Your task to perform on an android device: turn off notifications in google photos Image 0: 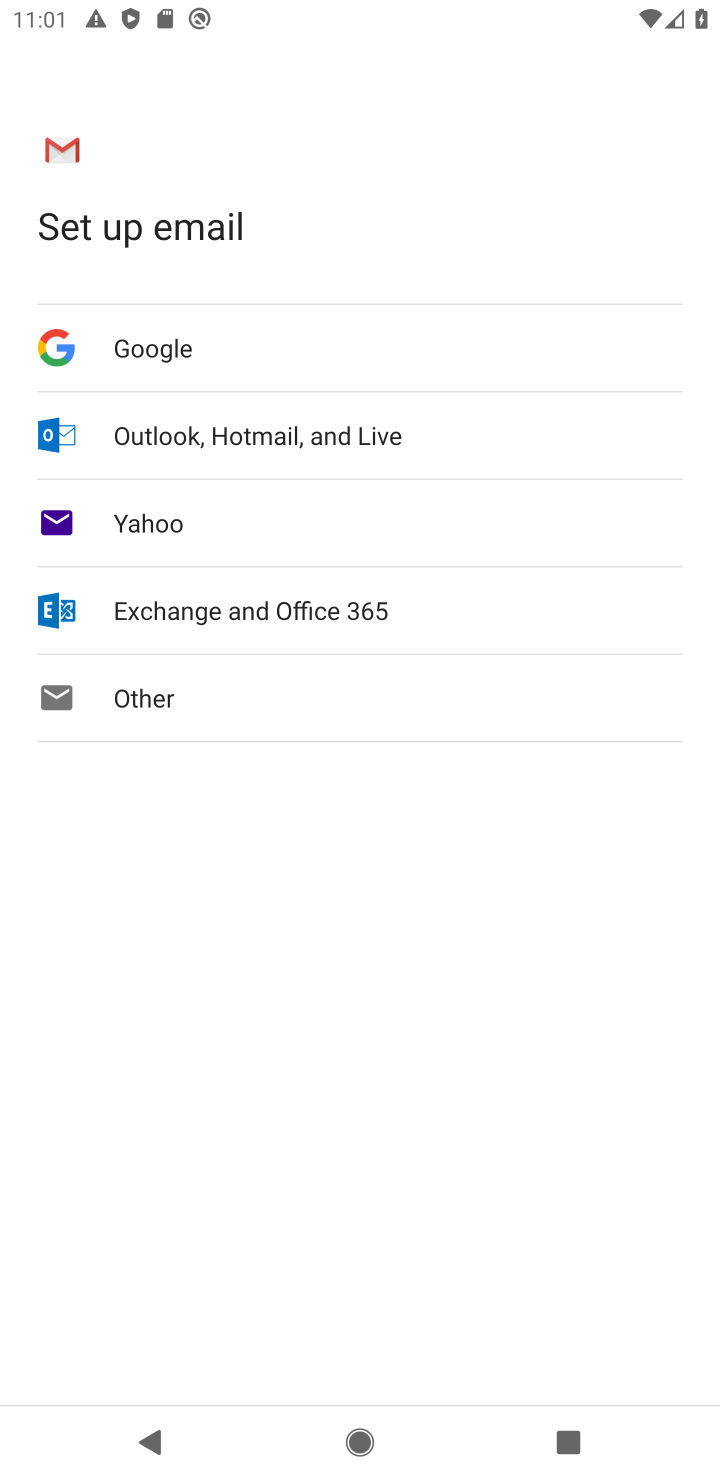
Step 0: drag from (407, 1265) to (685, 536)
Your task to perform on an android device: turn off notifications in google photos Image 1: 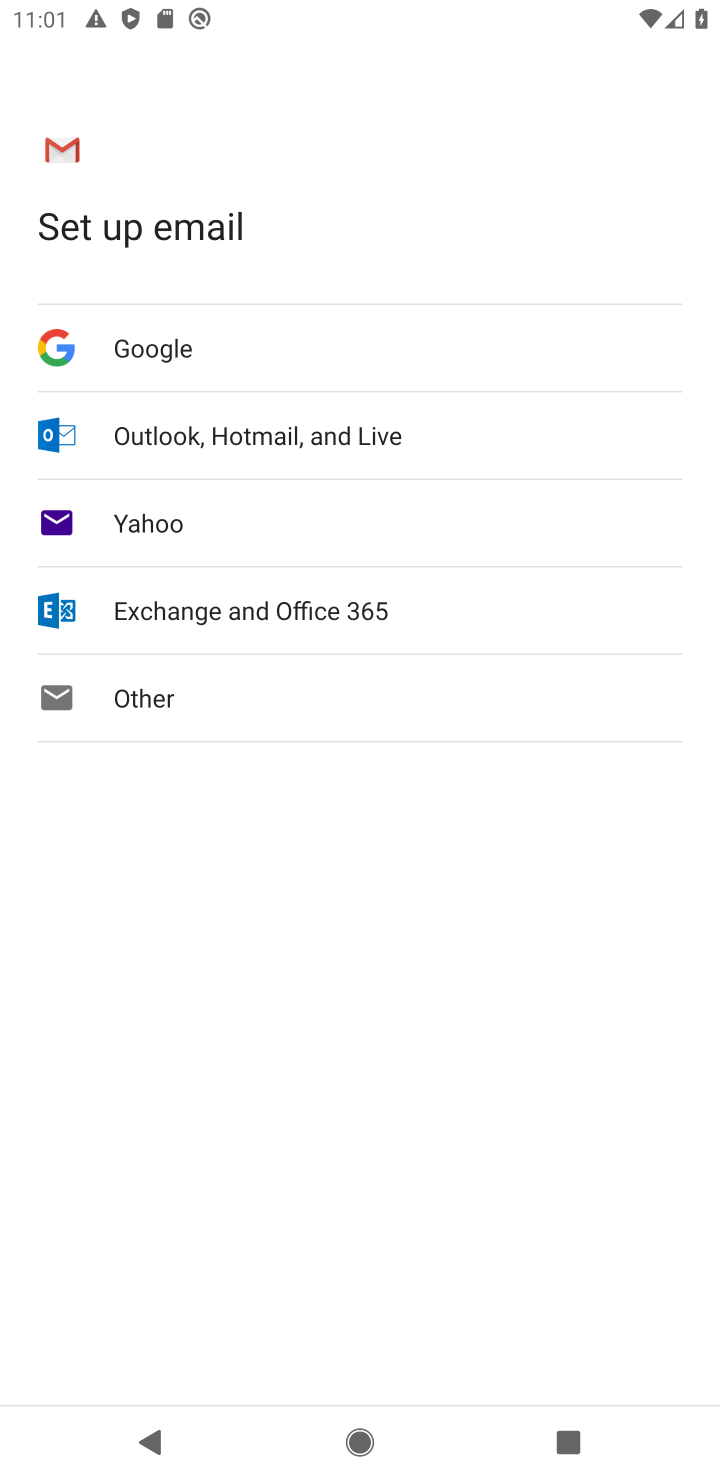
Step 1: press home button
Your task to perform on an android device: turn off notifications in google photos Image 2: 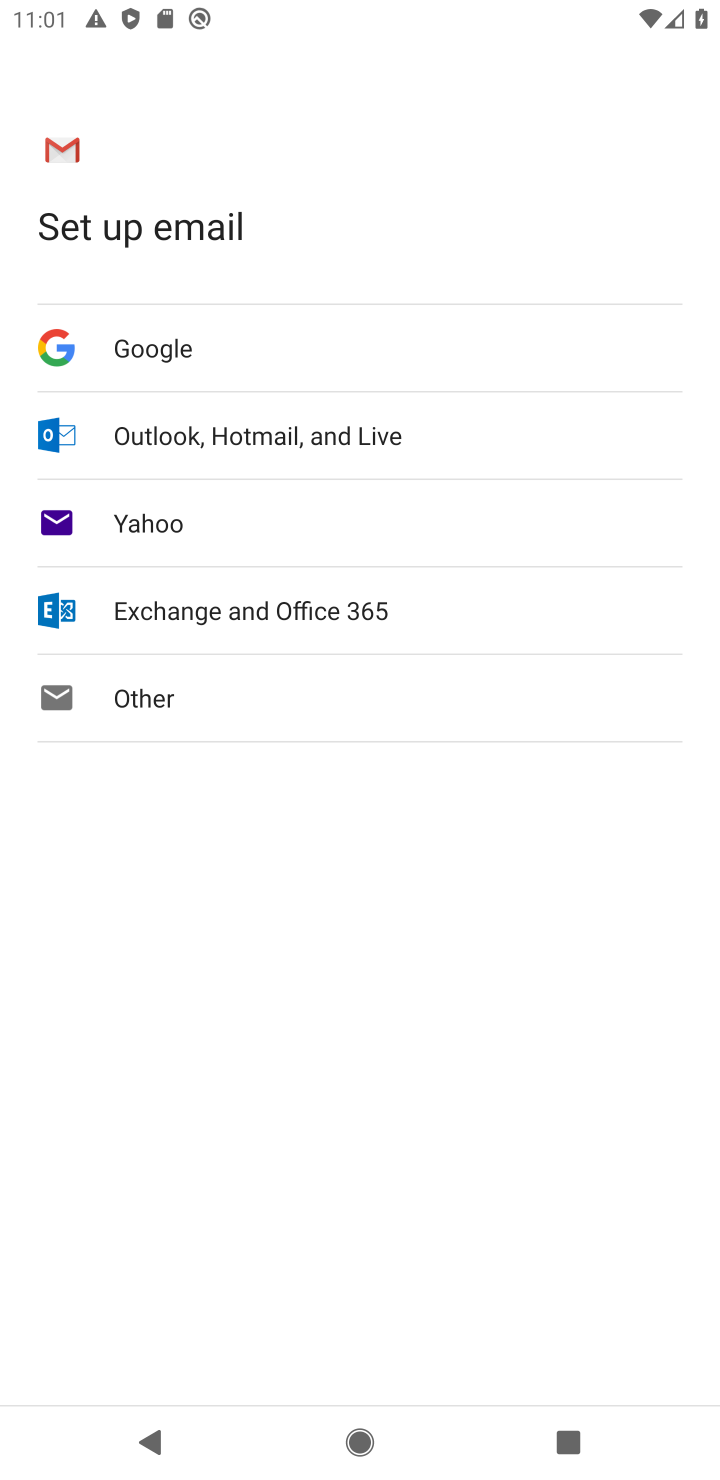
Step 2: click (506, 319)
Your task to perform on an android device: turn off notifications in google photos Image 3: 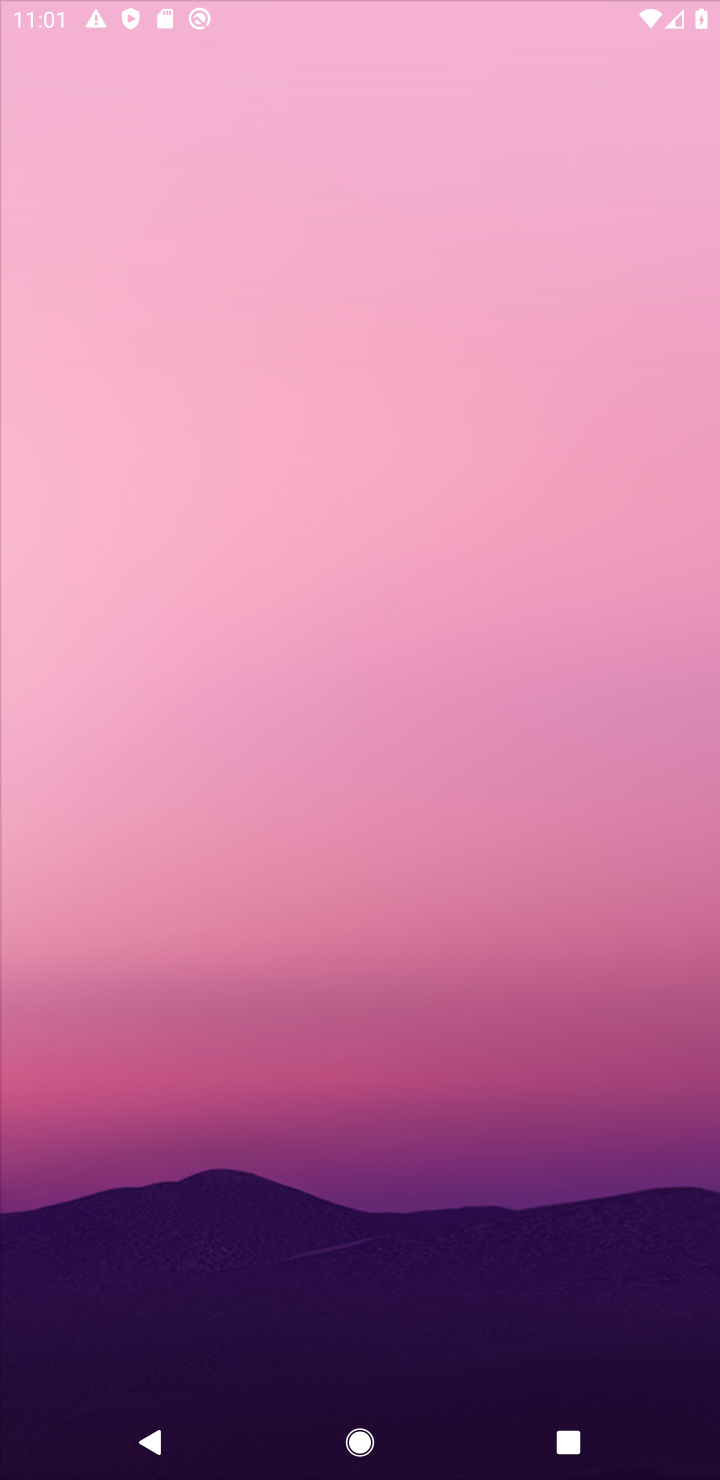
Step 3: drag from (217, 1246) to (300, 310)
Your task to perform on an android device: turn off notifications in google photos Image 4: 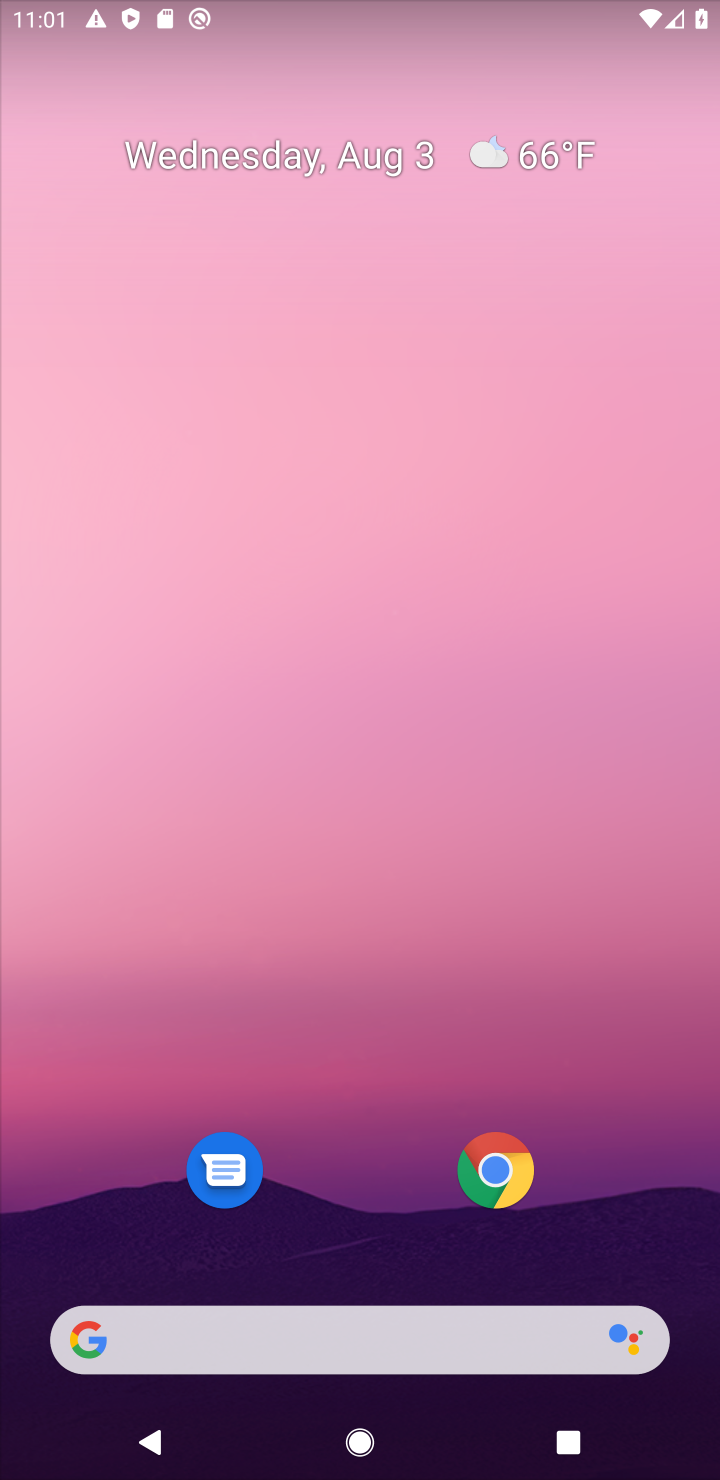
Step 4: drag from (372, 990) to (437, 176)
Your task to perform on an android device: turn off notifications in google photos Image 5: 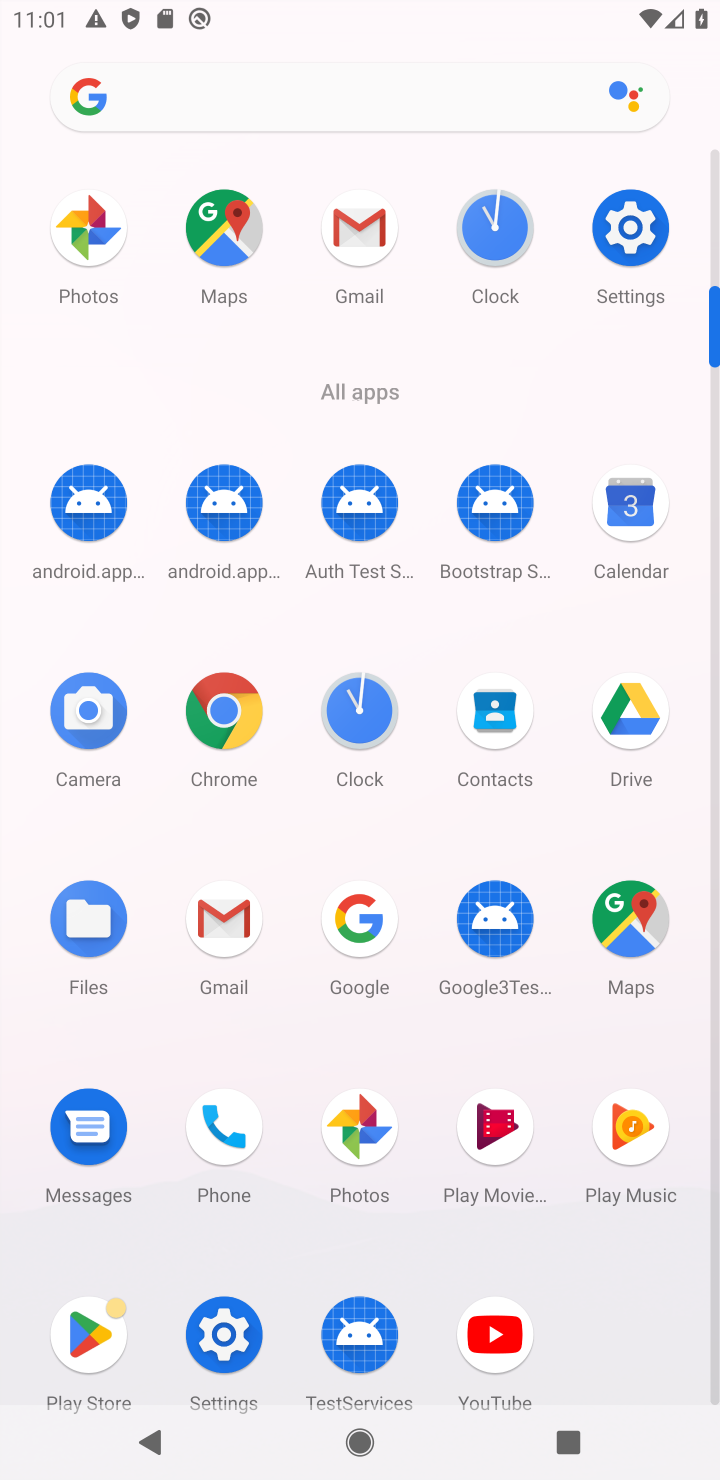
Step 5: click (347, 1118)
Your task to perform on an android device: turn off notifications in google photos Image 6: 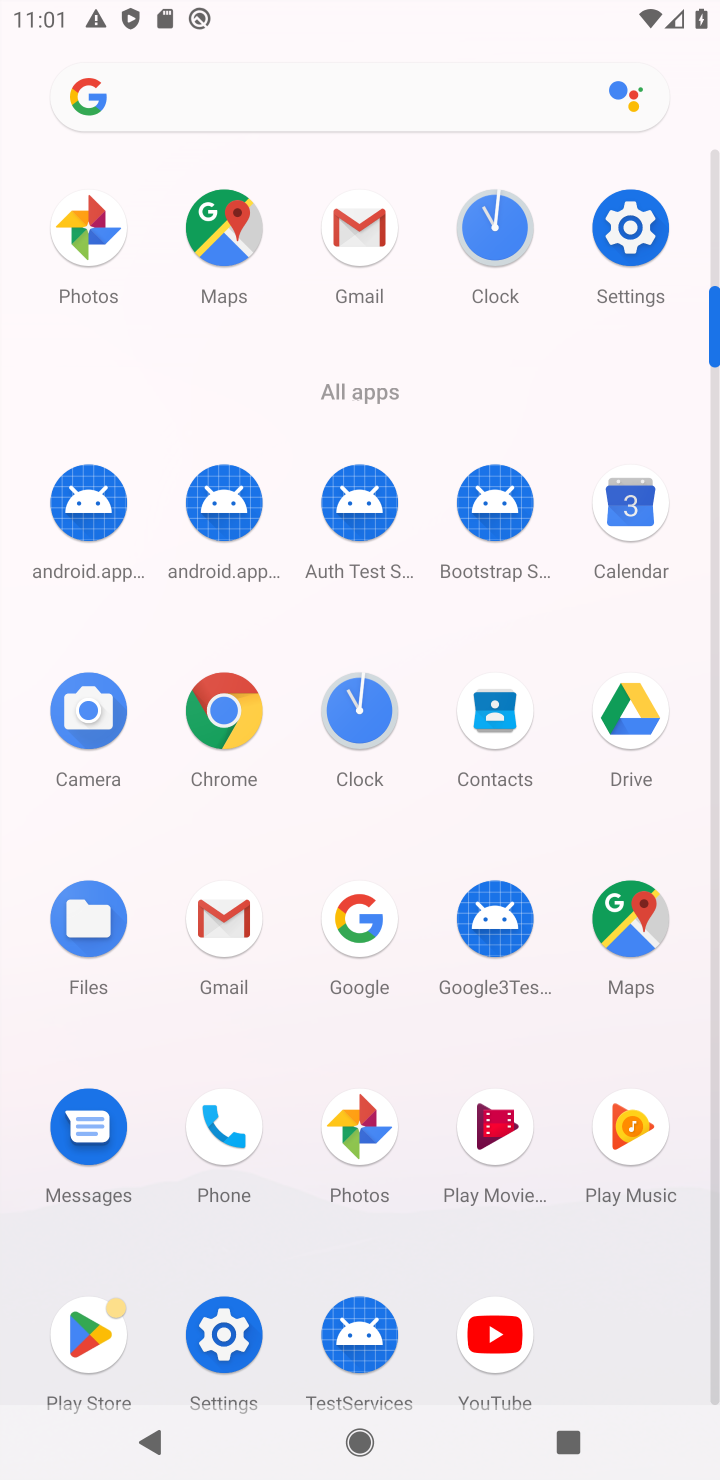
Step 6: click (347, 1118)
Your task to perform on an android device: turn off notifications in google photos Image 7: 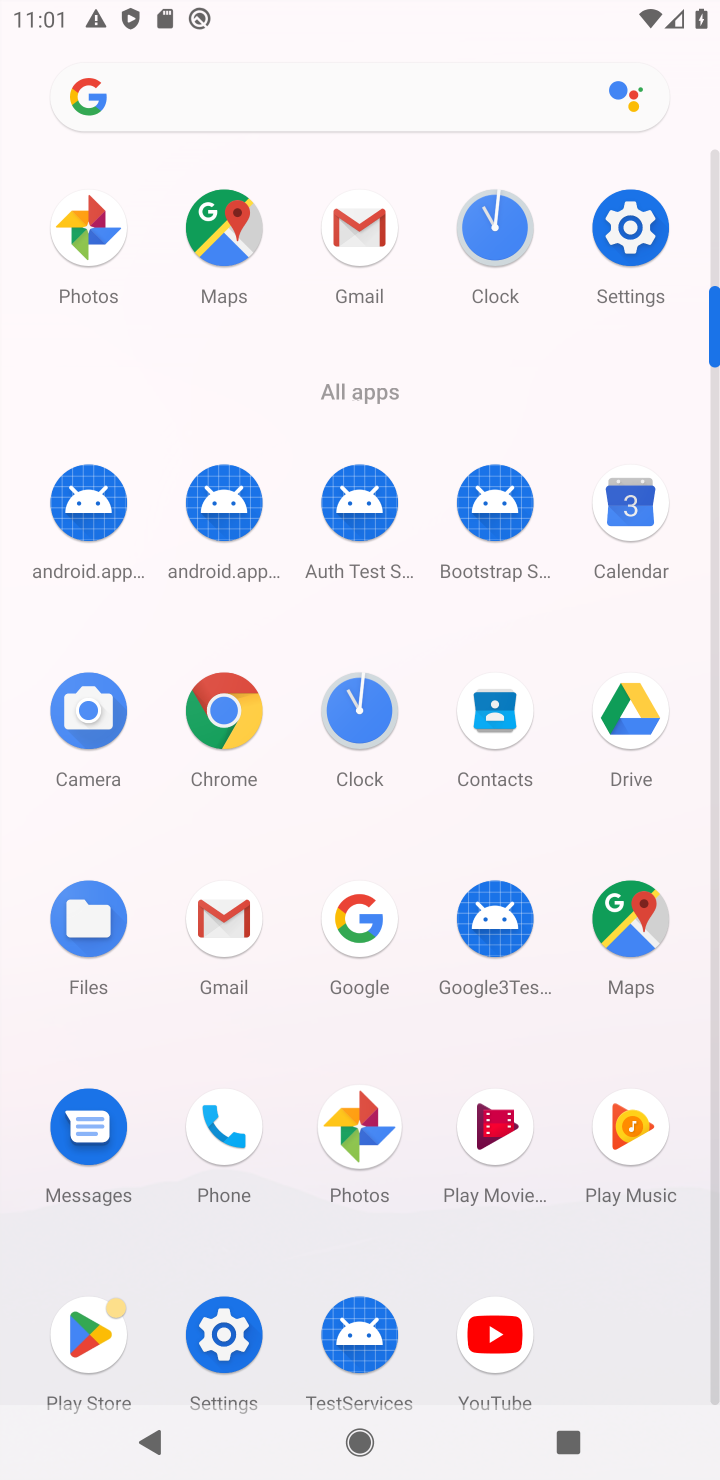
Step 7: click (345, 1116)
Your task to perform on an android device: turn off notifications in google photos Image 8: 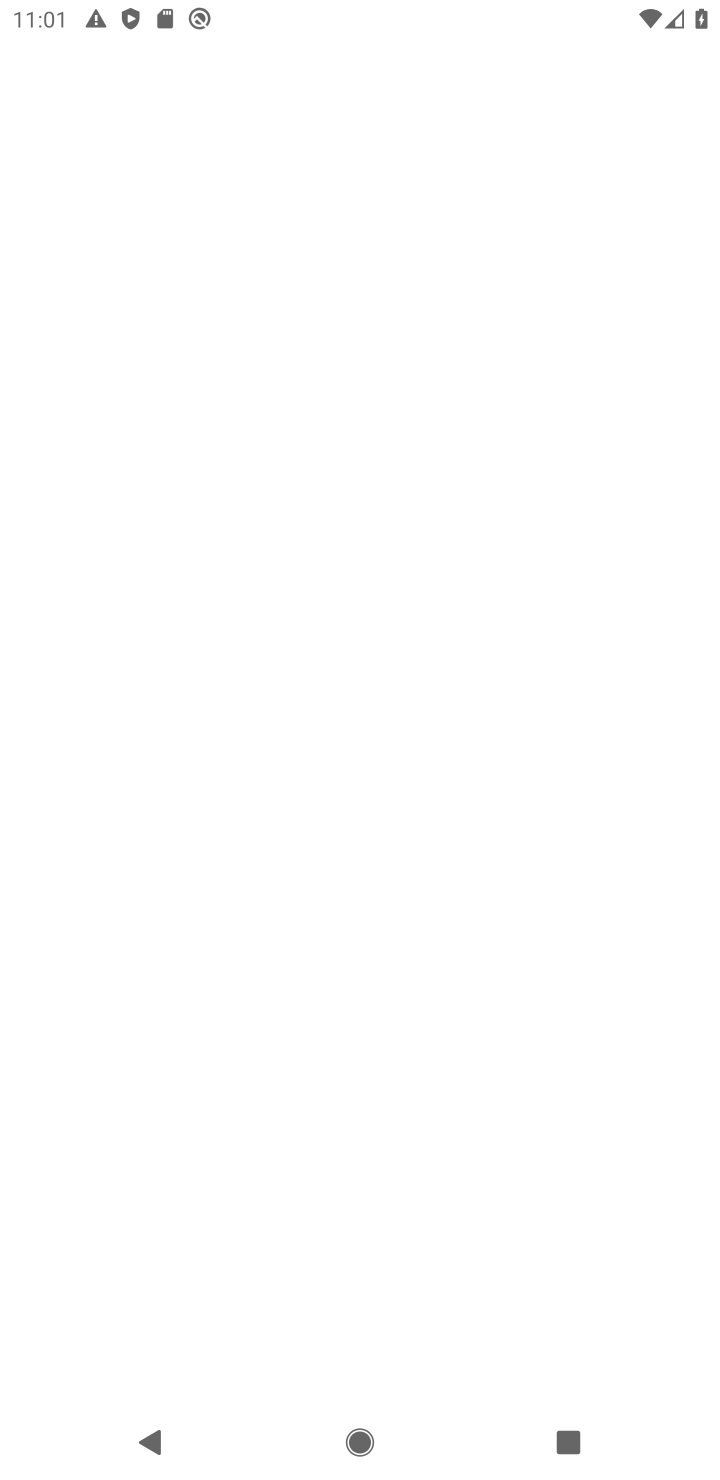
Step 8: drag from (404, 882) to (468, 349)
Your task to perform on an android device: turn off notifications in google photos Image 9: 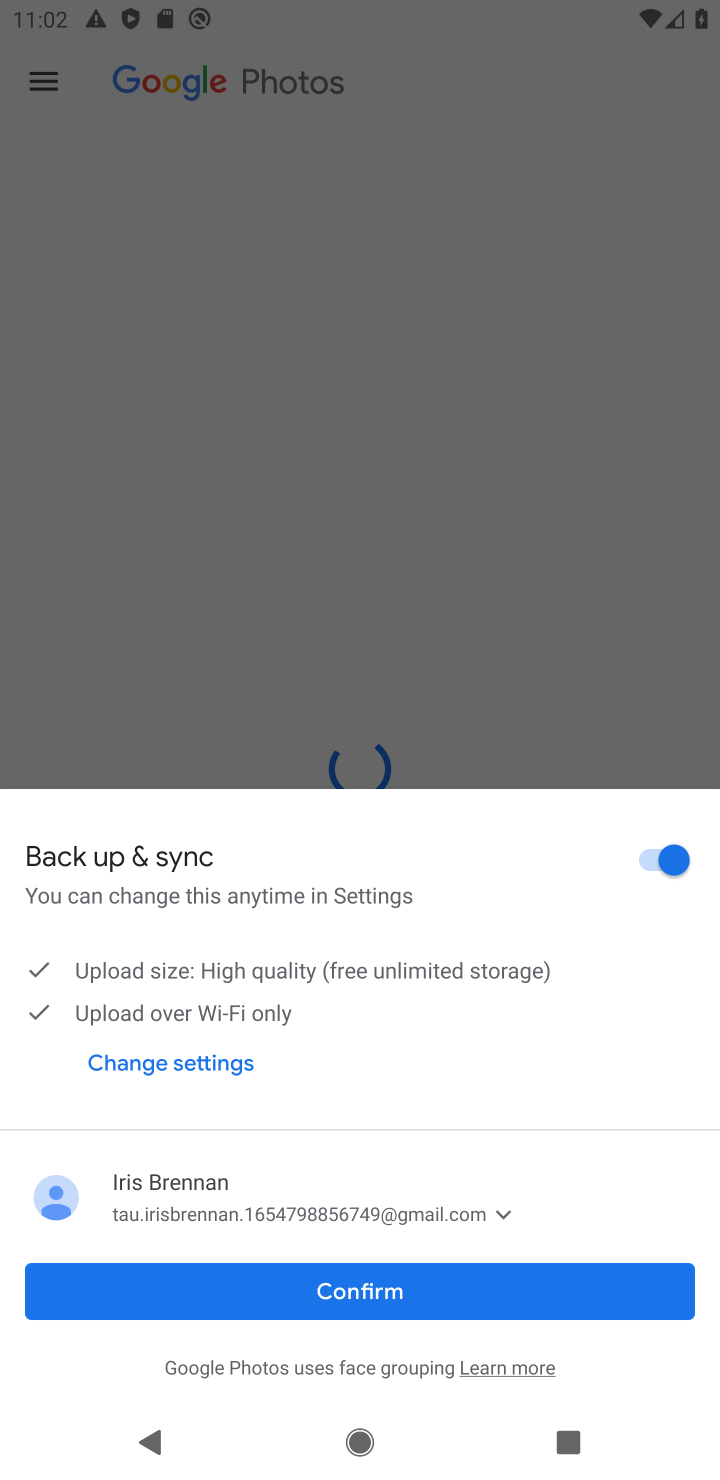
Step 9: drag from (308, 682) to (418, 188)
Your task to perform on an android device: turn off notifications in google photos Image 10: 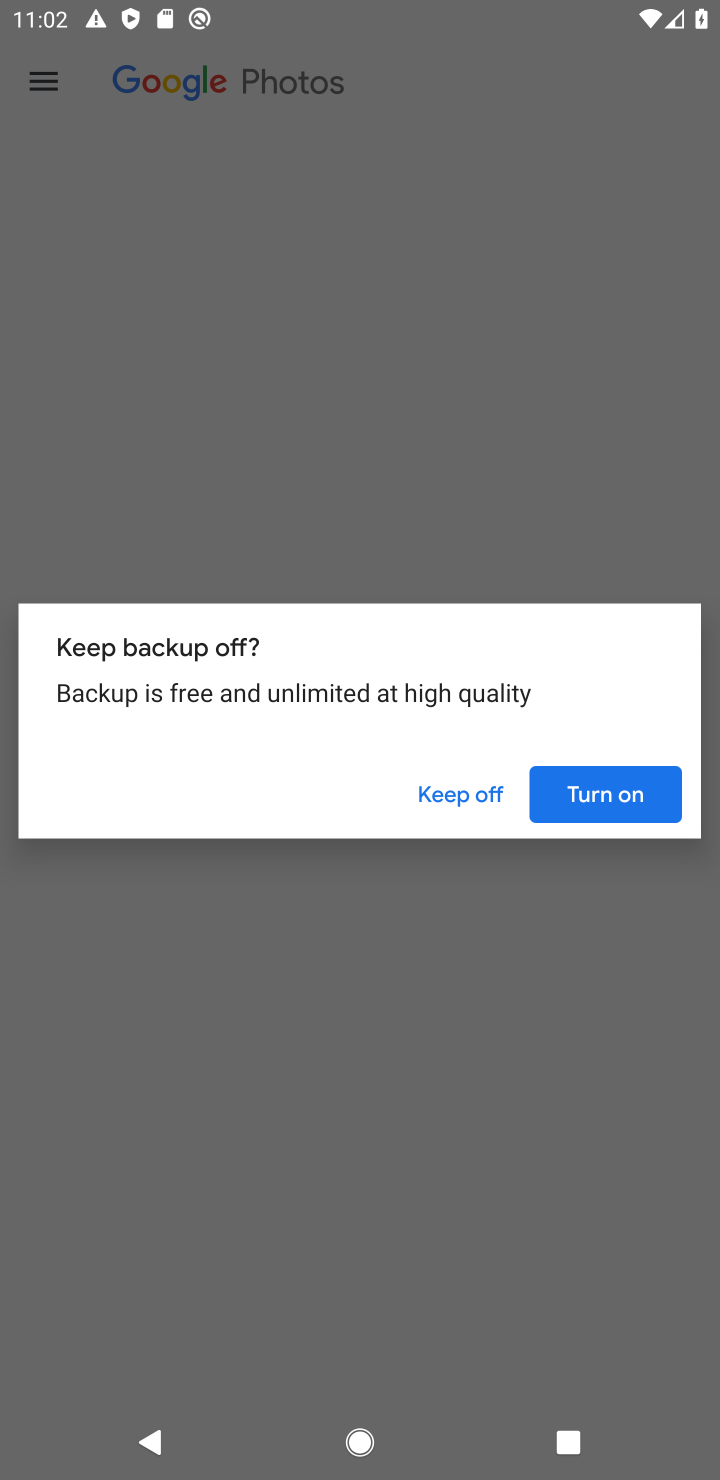
Step 10: drag from (338, 921) to (380, 381)
Your task to perform on an android device: turn off notifications in google photos Image 11: 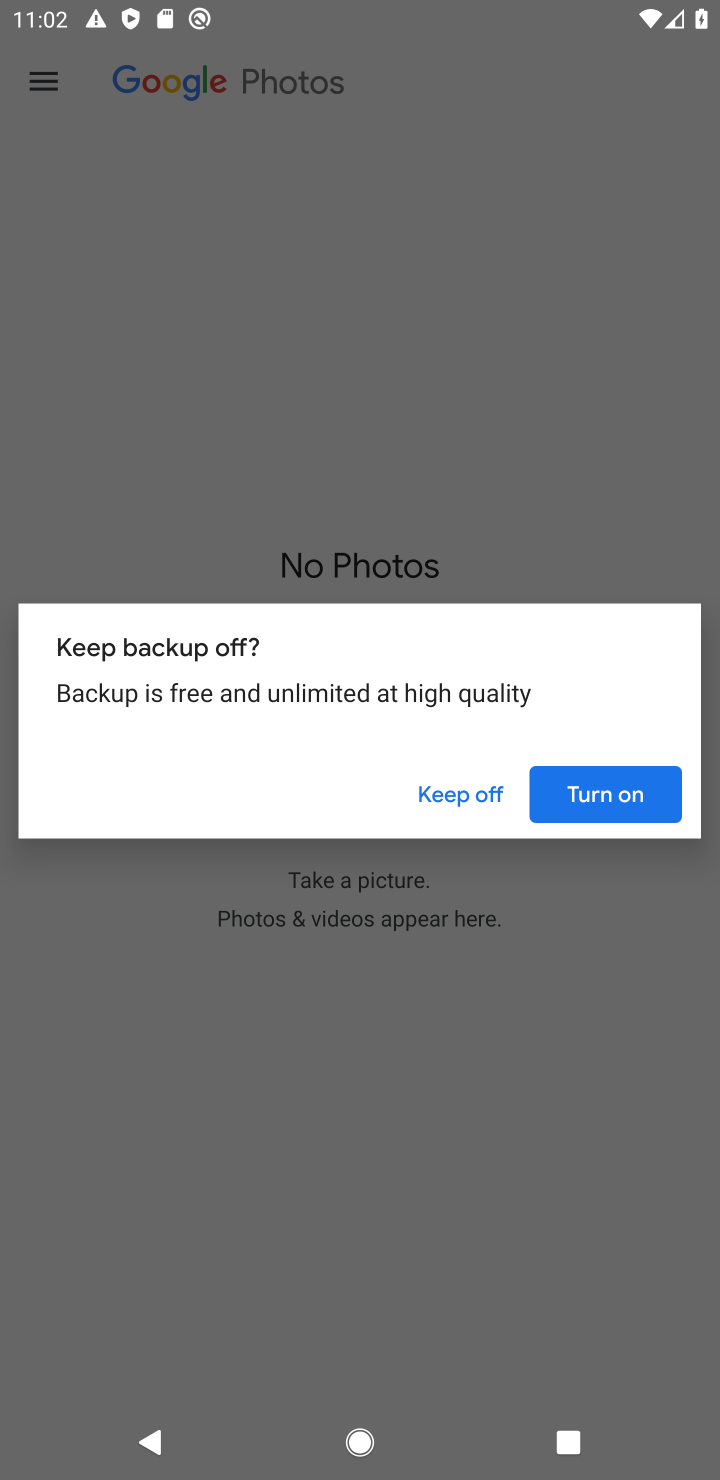
Step 11: click (593, 803)
Your task to perform on an android device: turn off notifications in google photos Image 12: 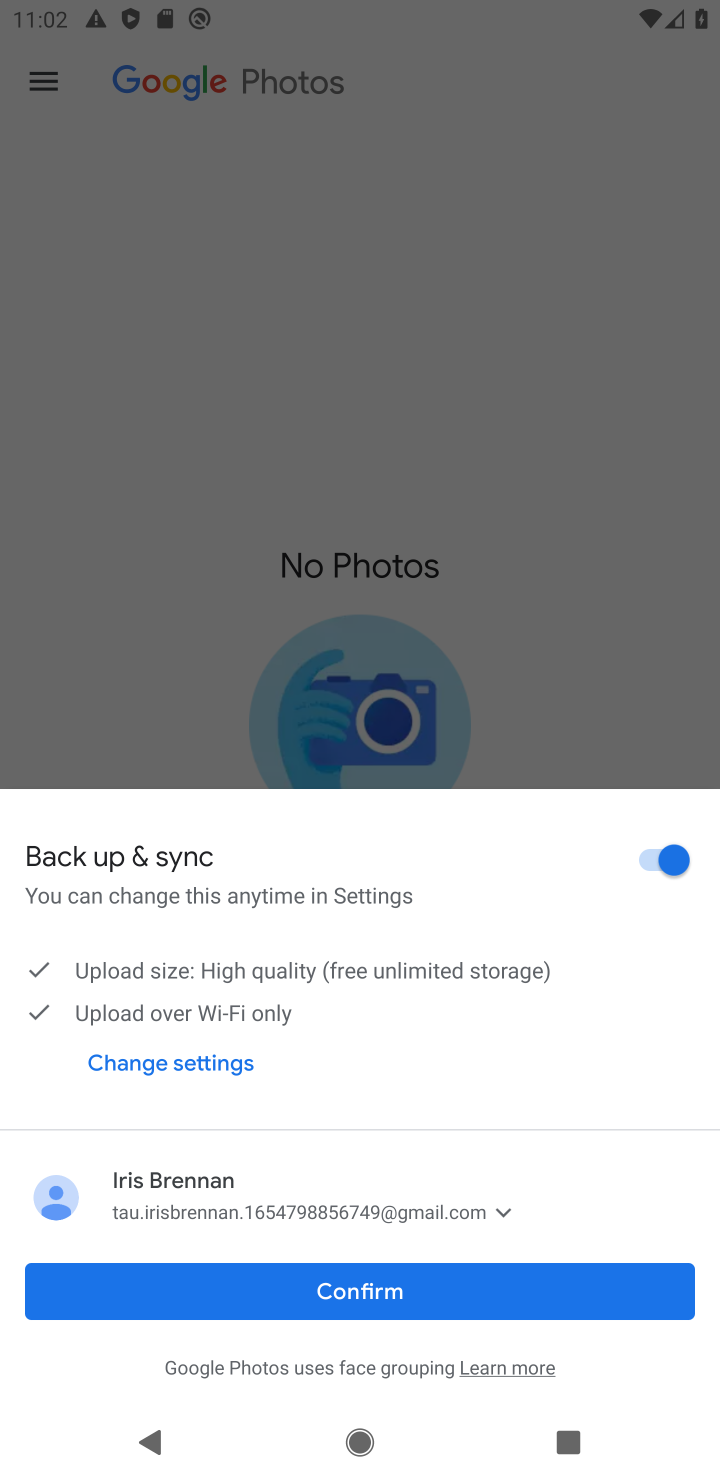
Step 12: click (332, 1295)
Your task to perform on an android device: turn off notifications in google photos Image 13: 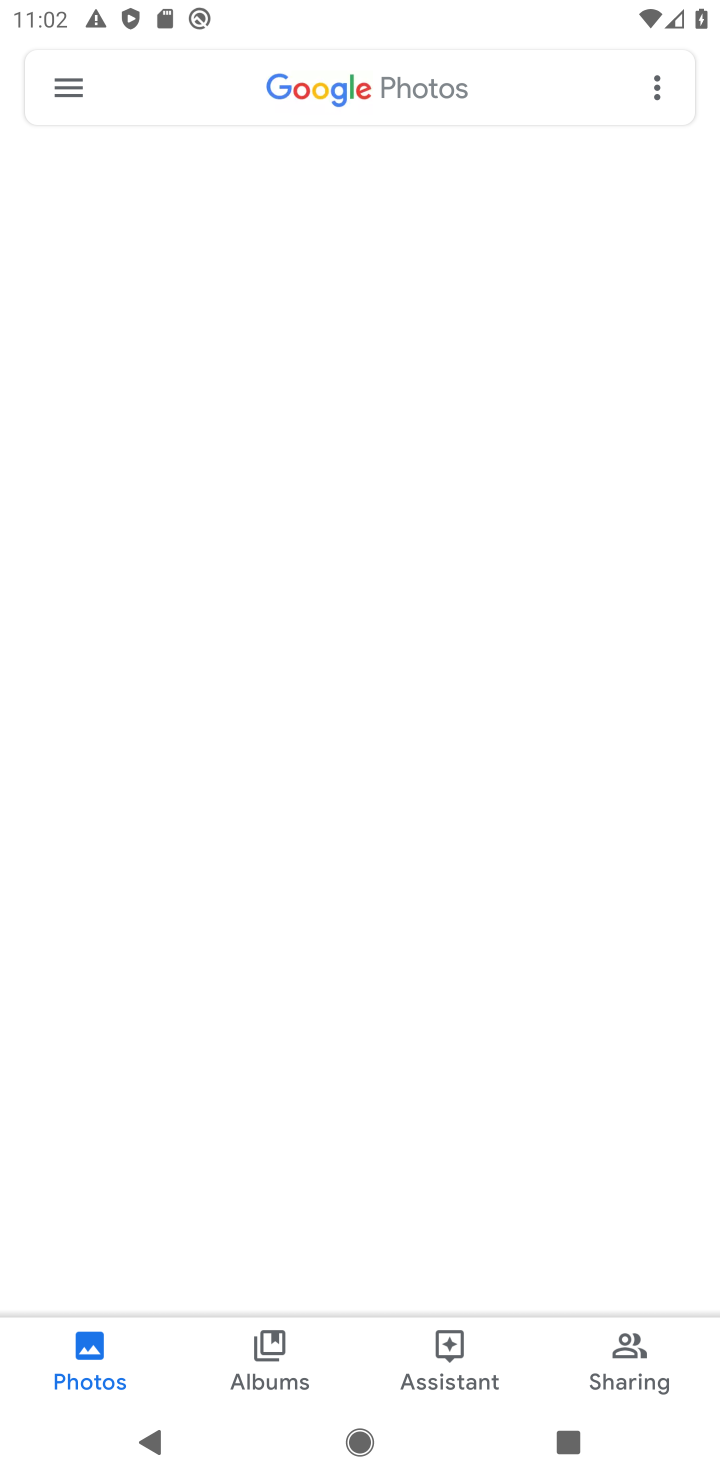
Step 13: click (39, 92)
Your task to perform on an android device: turn off notifications in google photos Image 14: 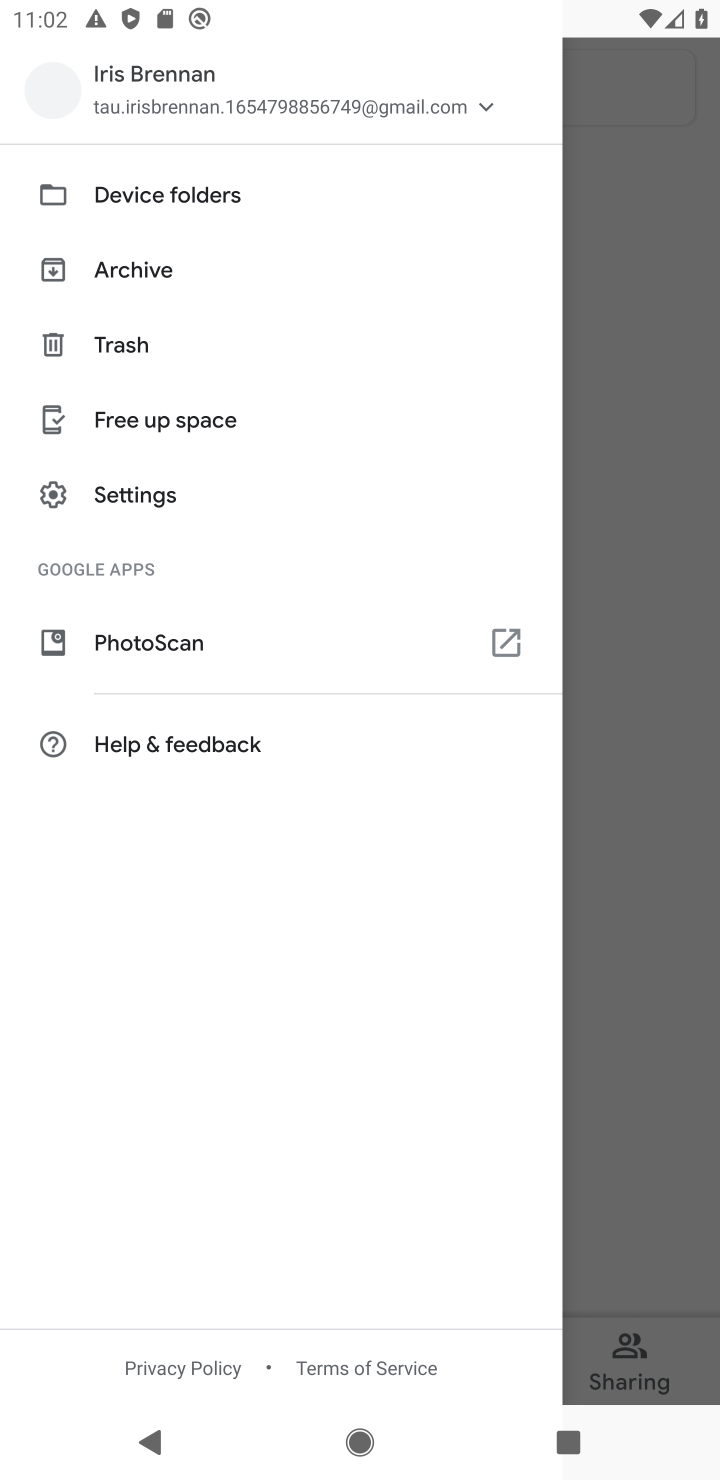
Step 14: click (134, 493)
Your task to perform on an android device: turn off notifications in google photos Image 15: 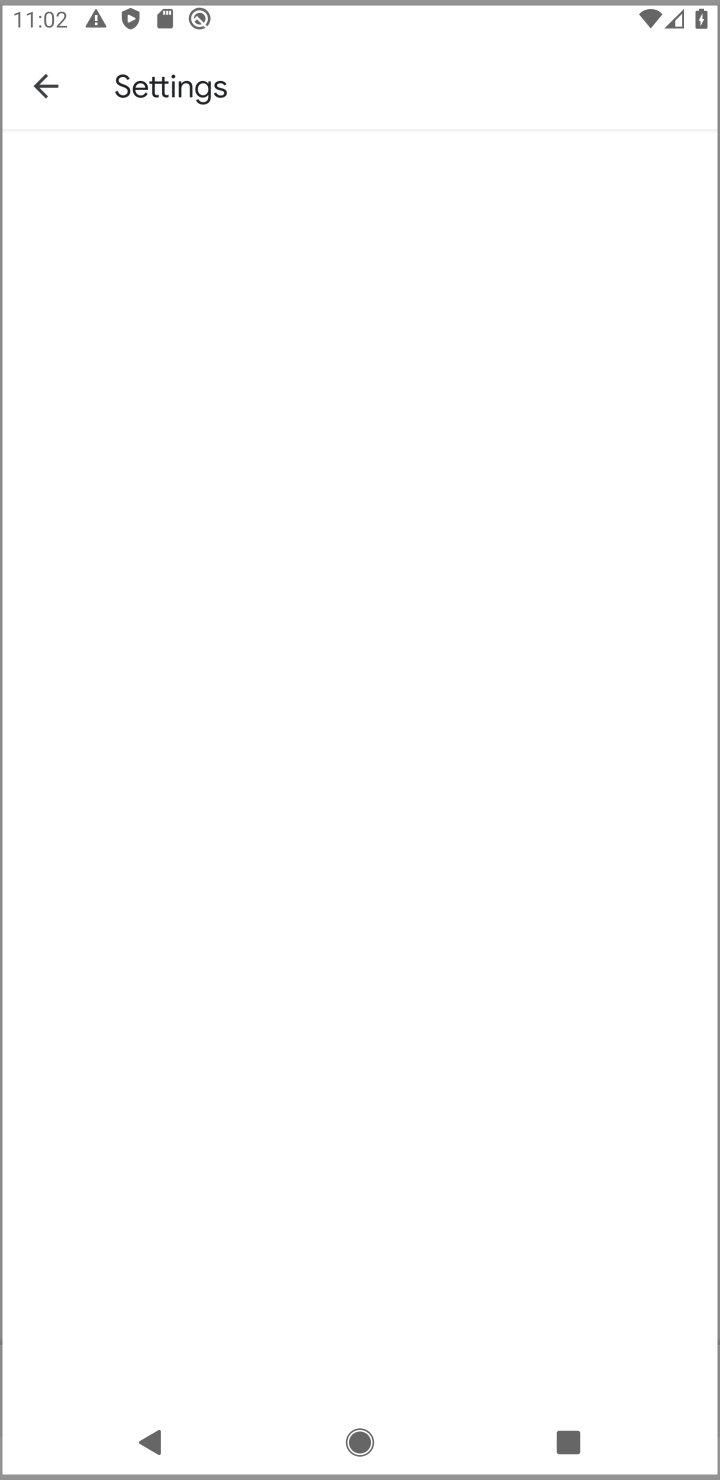
Step 15: drag from (436, 939) to (485, 387)
Your task to perform on an android device: turn off notifications in google photos Image 16: 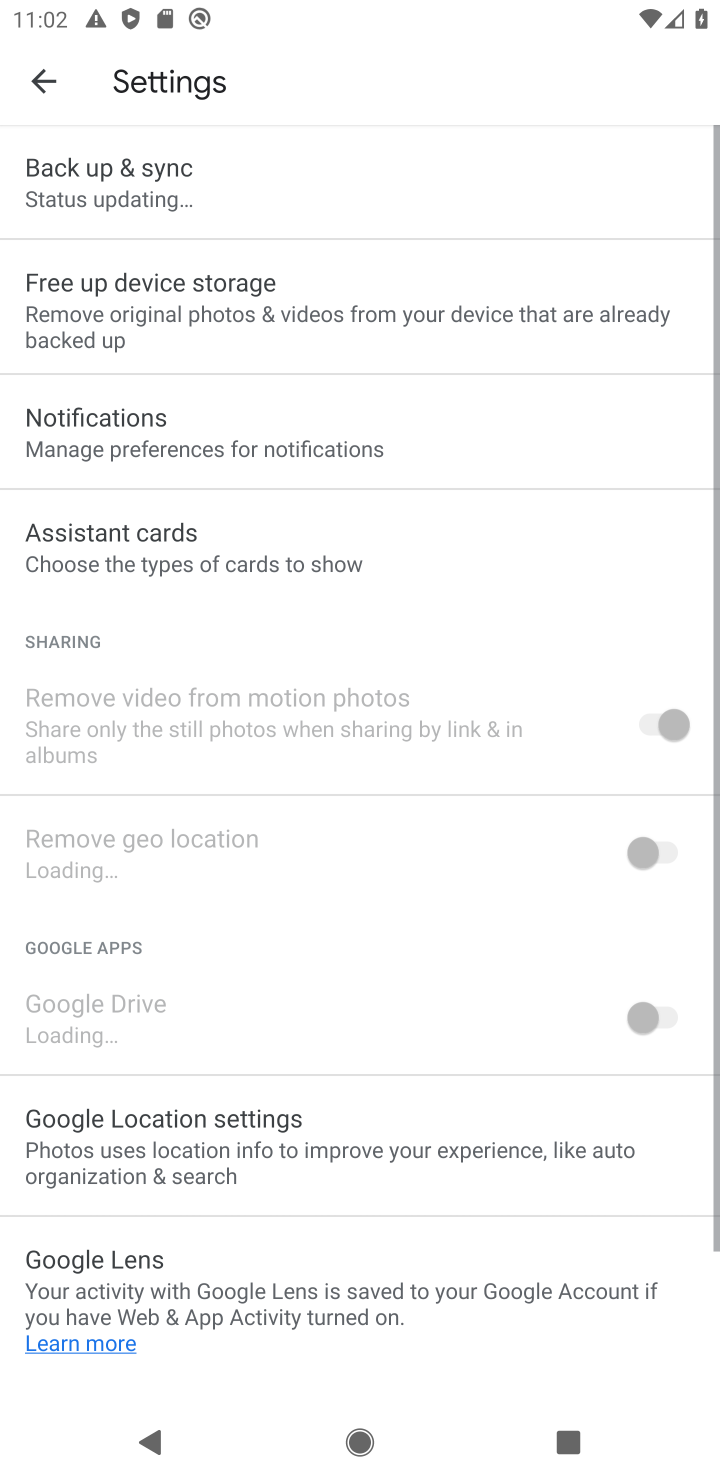
Step 16: drag from (468, 458) to (576, 1328)
Your task to perform on an android device: turn off notifications in google photos Image 17: 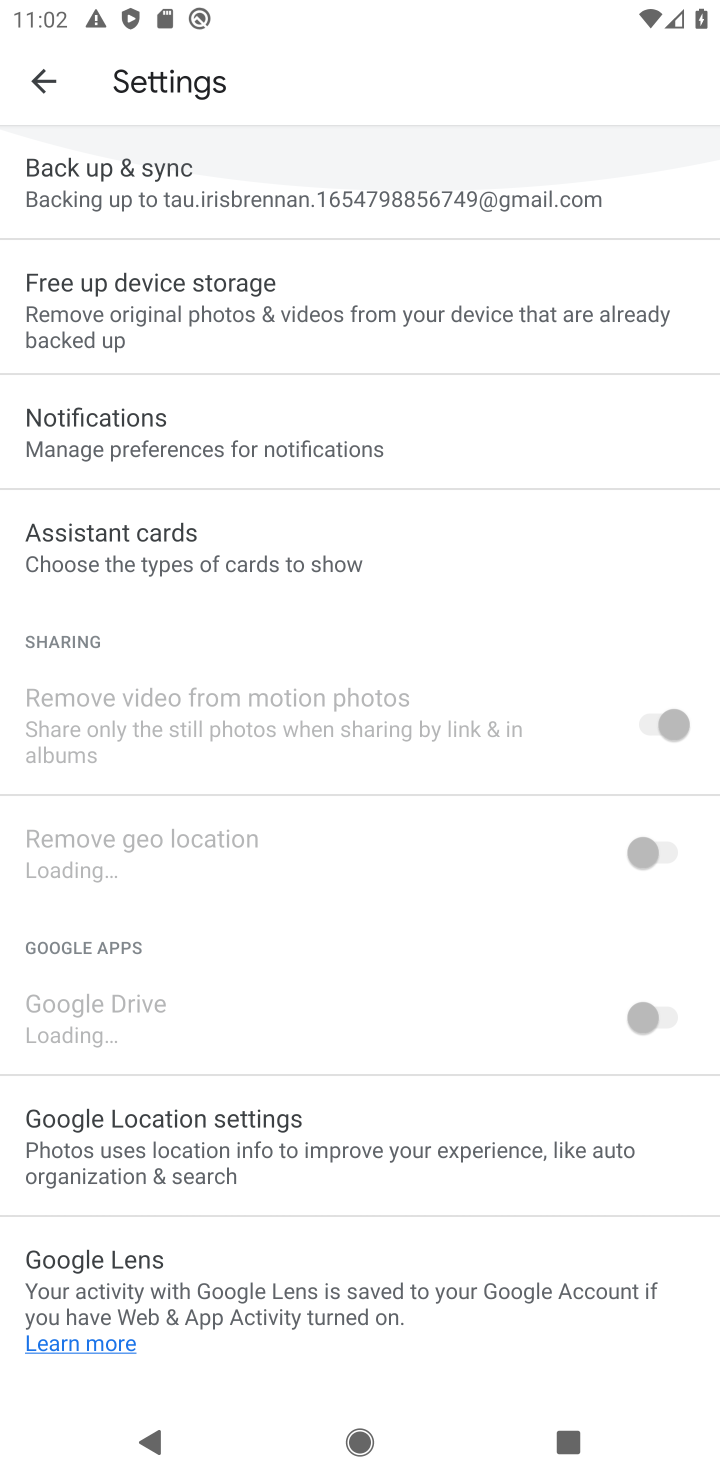
Step 17: drag from (386, 1194) to (489, 172)
Your task to perform on an android device: turn off notifications in google photos Image 18: 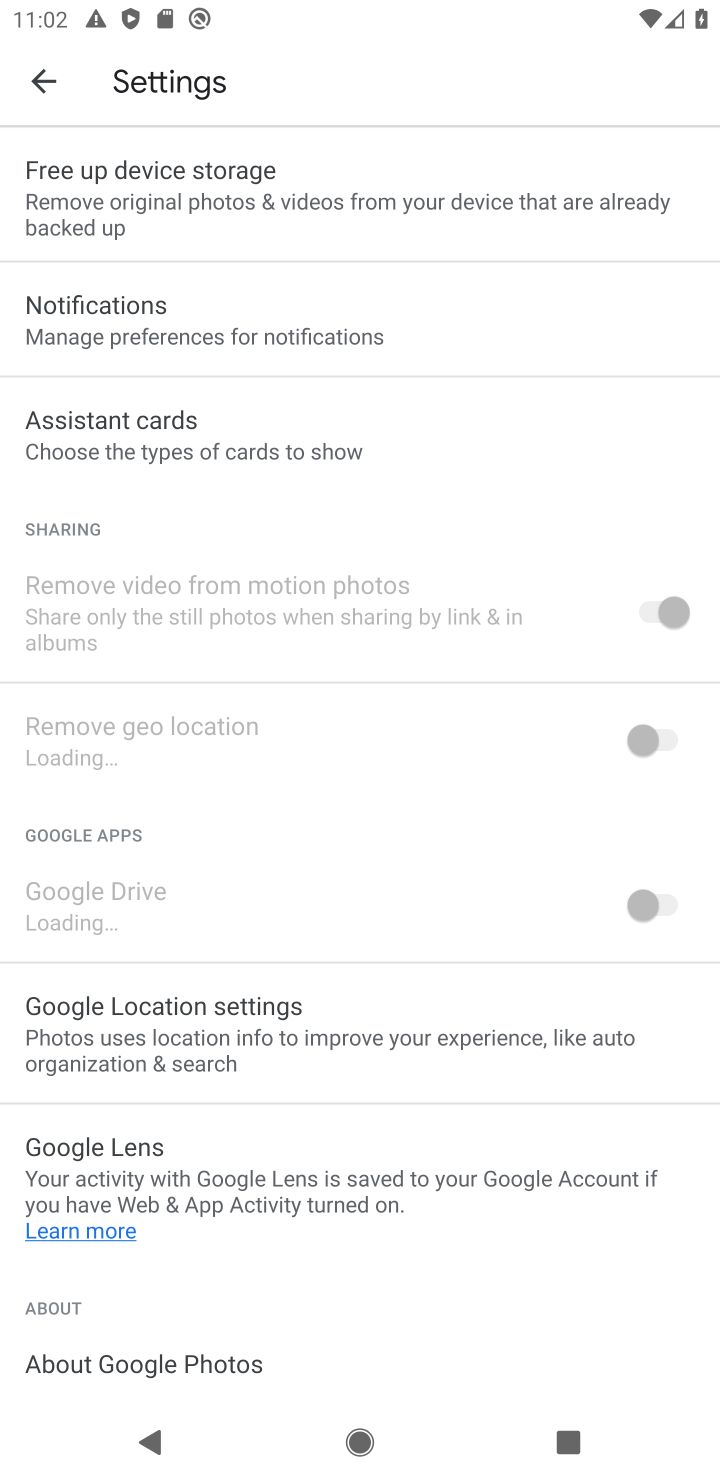
Step 18: drag from (305, 1166) to (484, 165)
Your task to perform on an android device: turn off notifications in google photos Image 19: 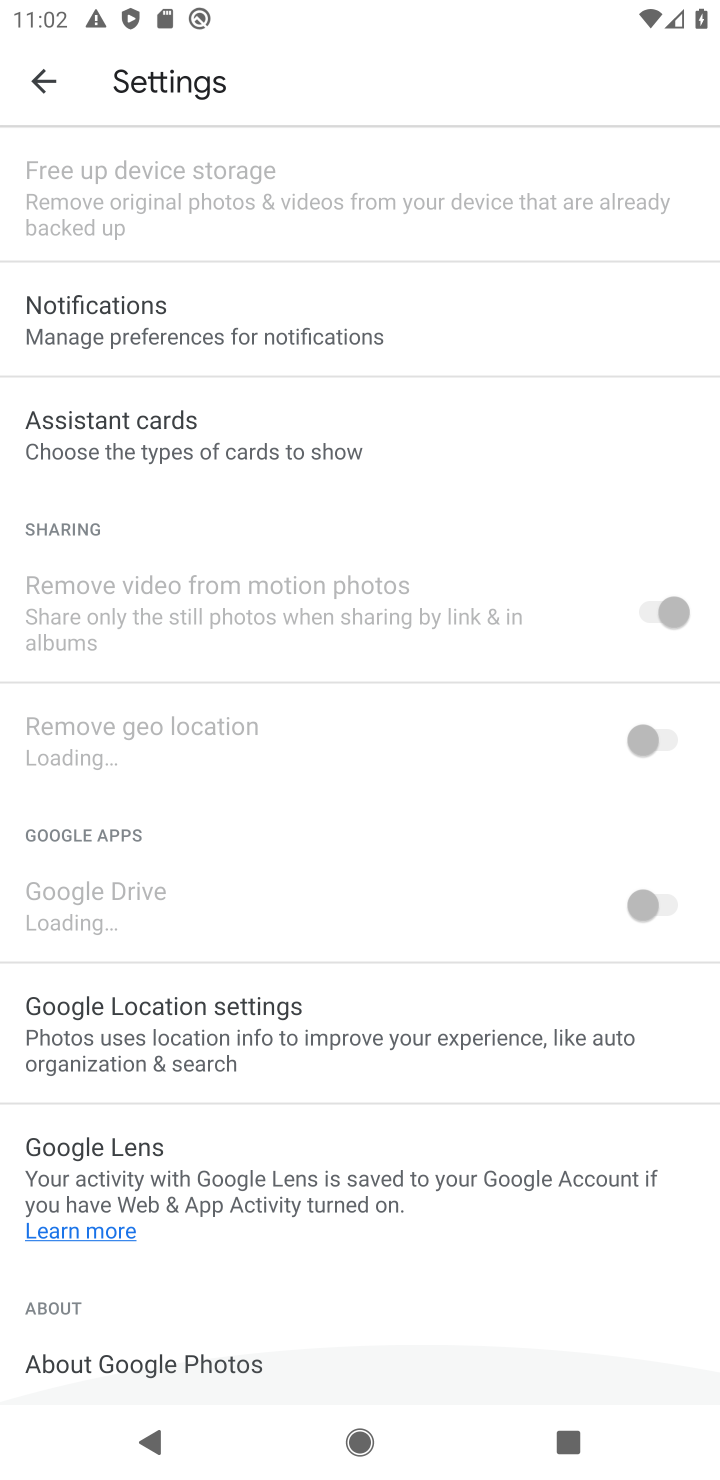
Step 19: drag from (394, 327) to (445, 1469)
Your task to perform on an android device: turn off notifications in google photos Image 20: 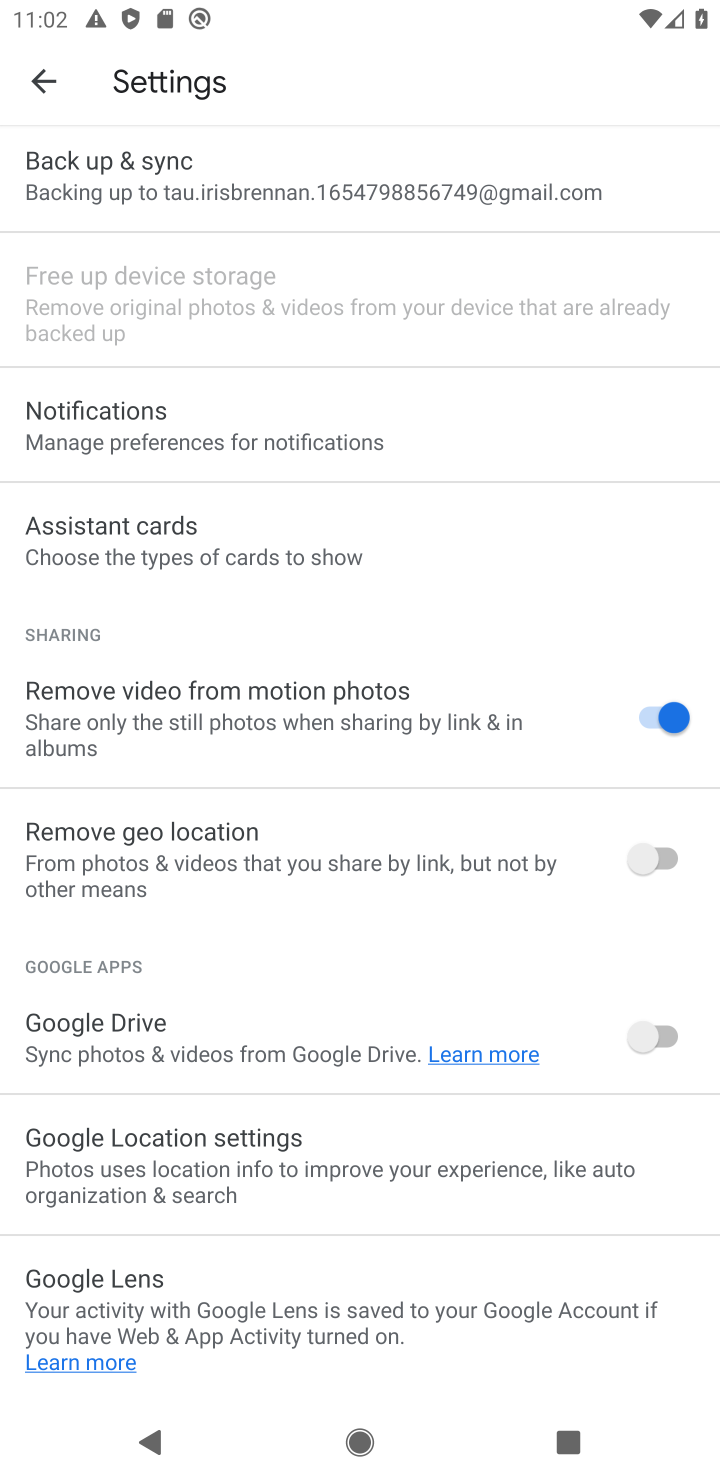
Step 20: click (223, 392)
Your task to perform on an android device: turn off notifications in google photos Image 21: 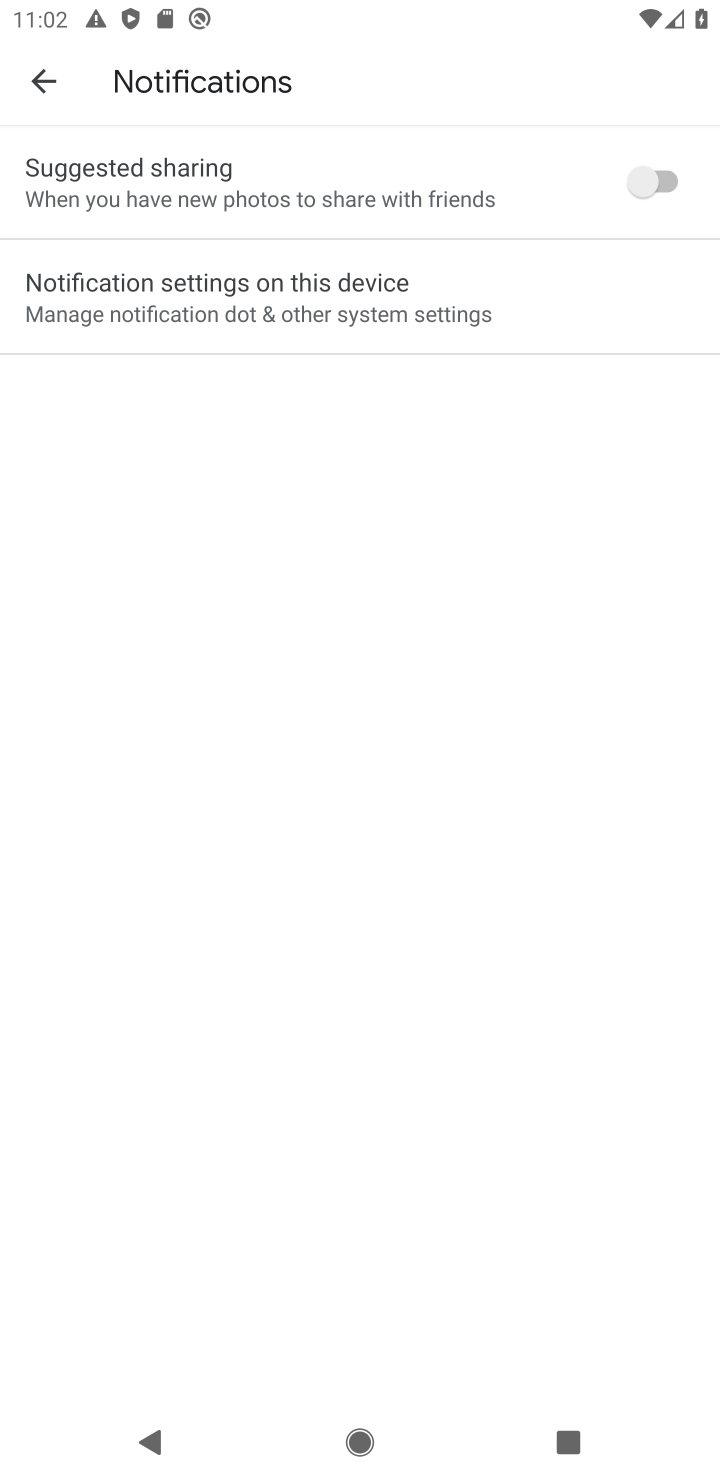
Step 21: click (254, 262)
Your task to perform on an android device: turn off notifications in google photos Image 22: 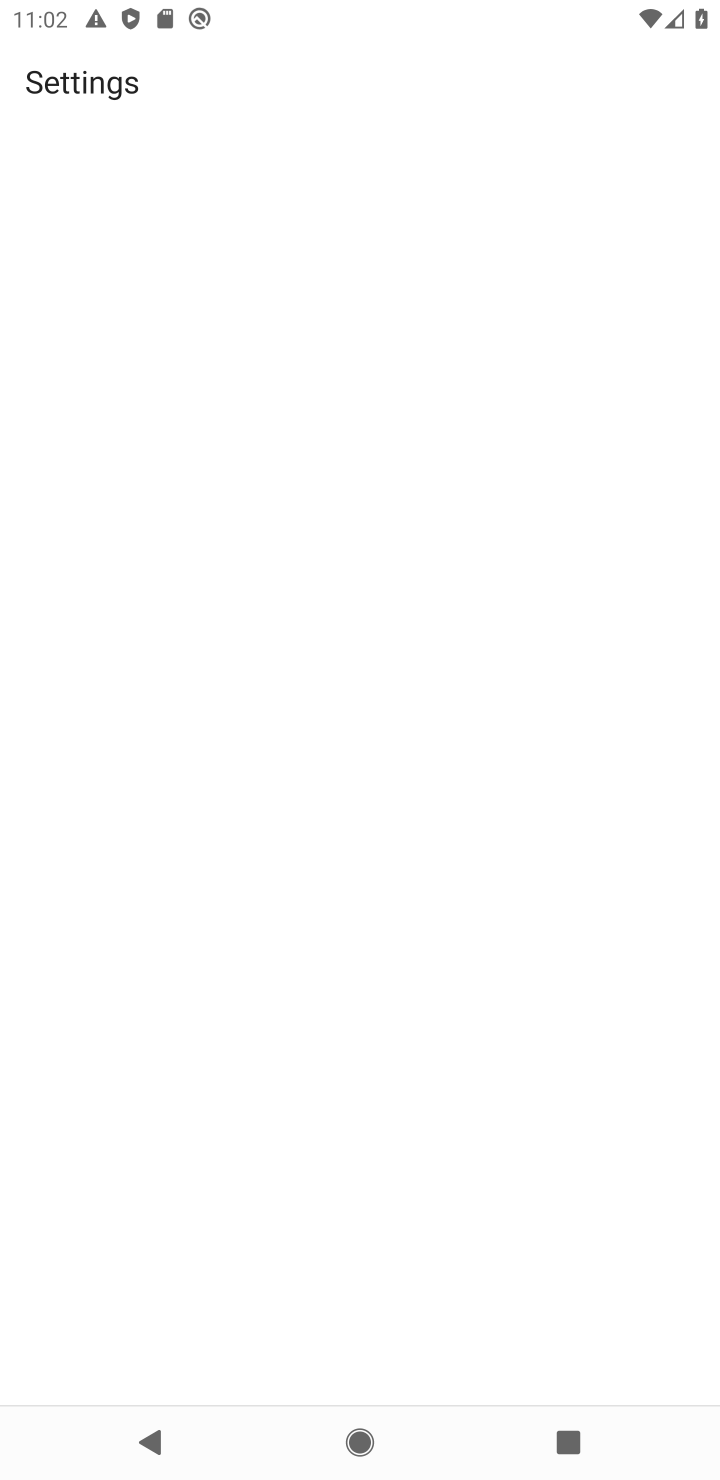
Step 22: drag from (391, 589) to (345, 1297)
Your task to perform on an android device: turn off notifications in google photos Image 23: 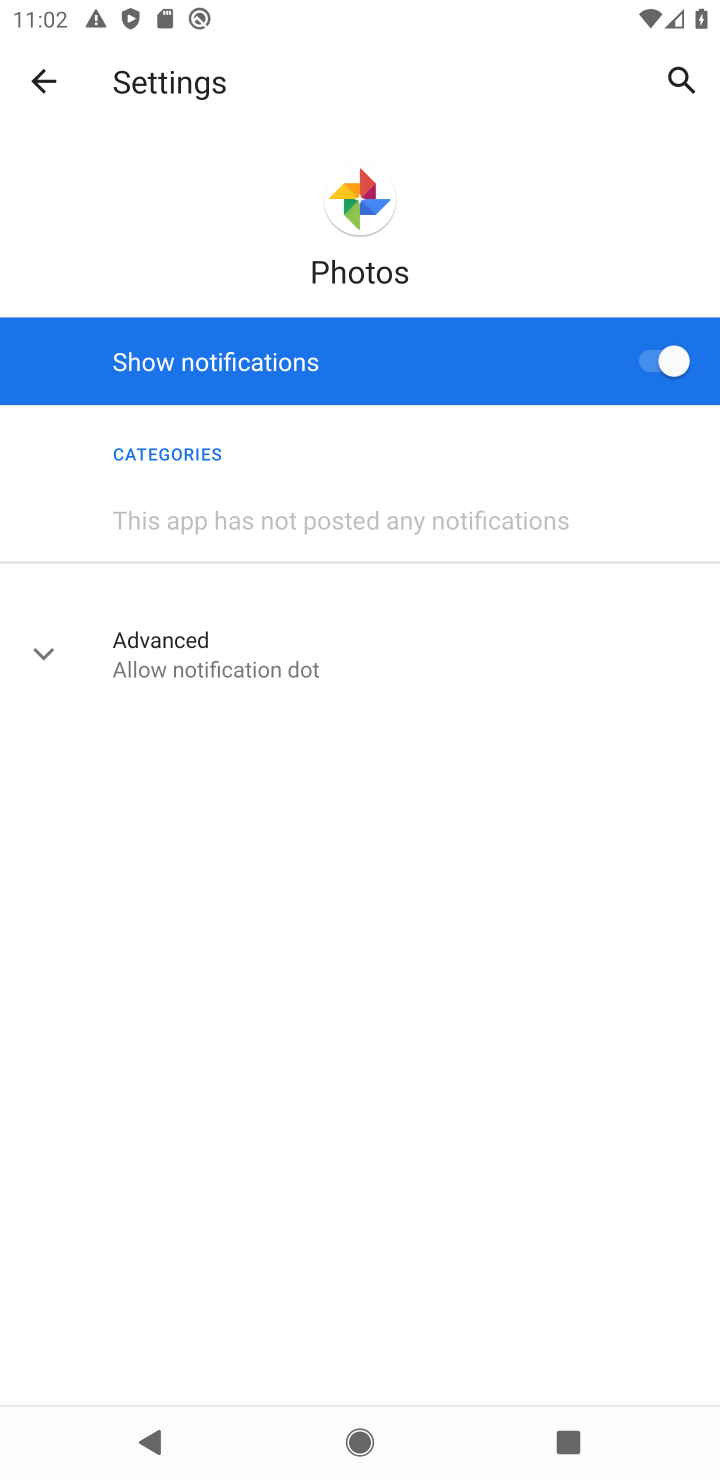
Step 23: click (667, 358)
Your task to perform on an android device: turn off notifications in google photos Image 24: 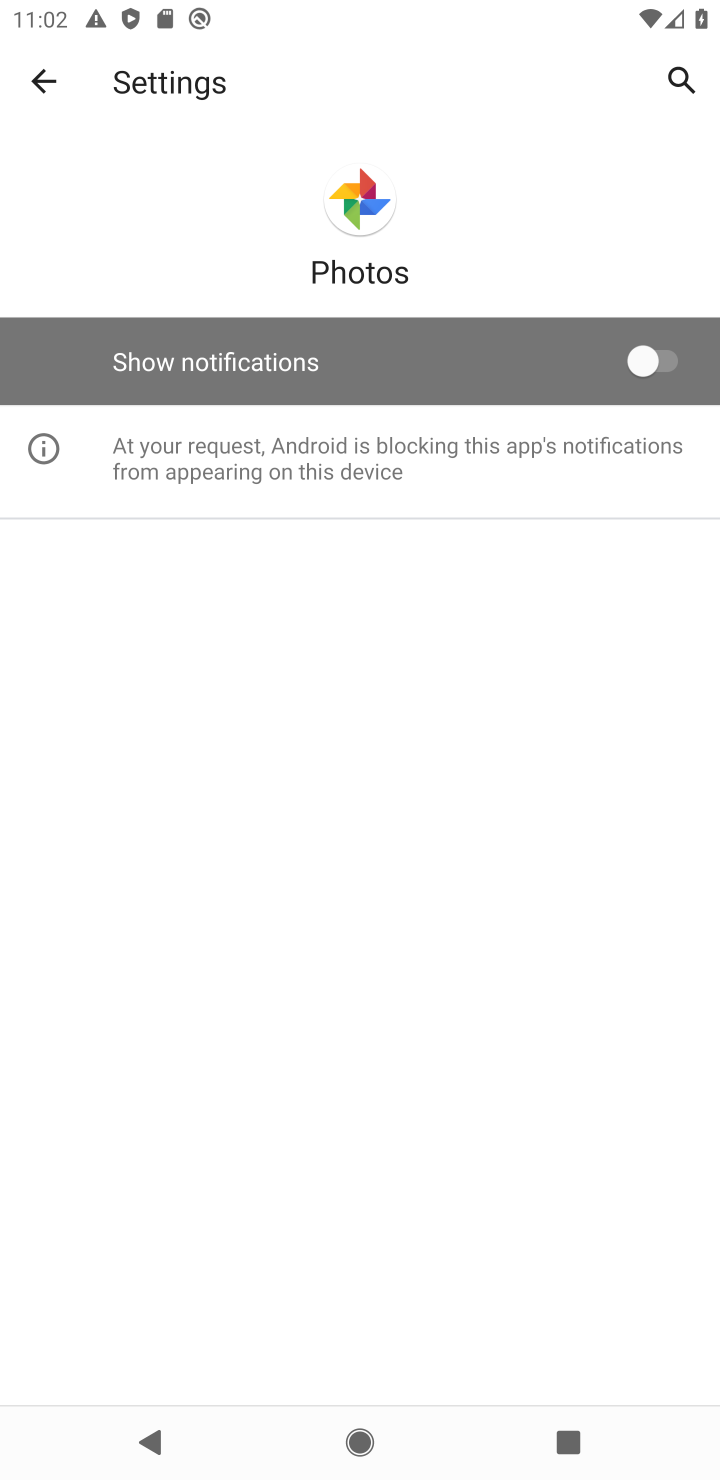
Step 24: task complete